Your task to perform on an android device: turn off wifi Image 0: 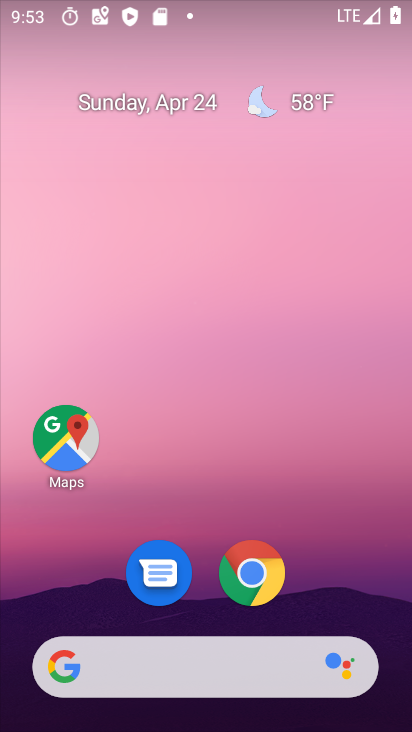
Step 0: drag from (363, 586) to (369, 150)
Your task to perform on an android device: turn off wifi Image 1: 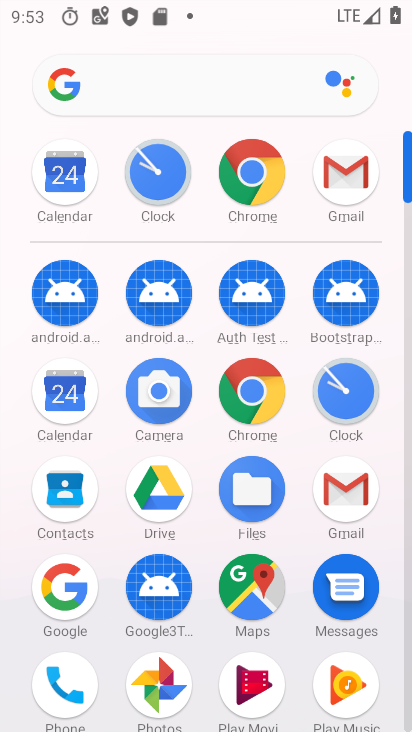
Step 1: drag from (292, 550) to (332, 143)
Your task to perform on an android device: turn off wifi Image 2: 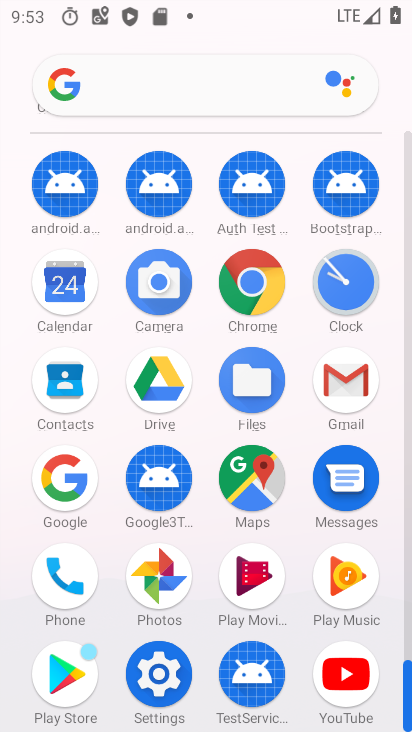
Step 2: click (163, 669)
Your task to perform on an android device: turn off wifi Image 3: 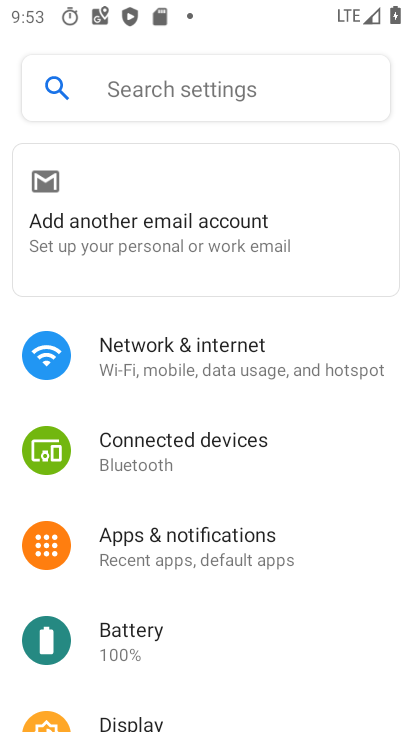
Step 3: click (229, 343)
Your task to perform on an android device: turn off wifi Image 4: 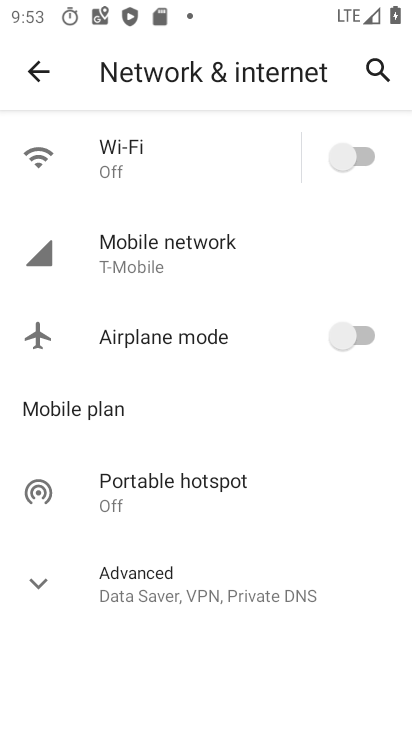
Step 4: task complete